Your task to perform on an android device: turn on sleep mode Image 0: 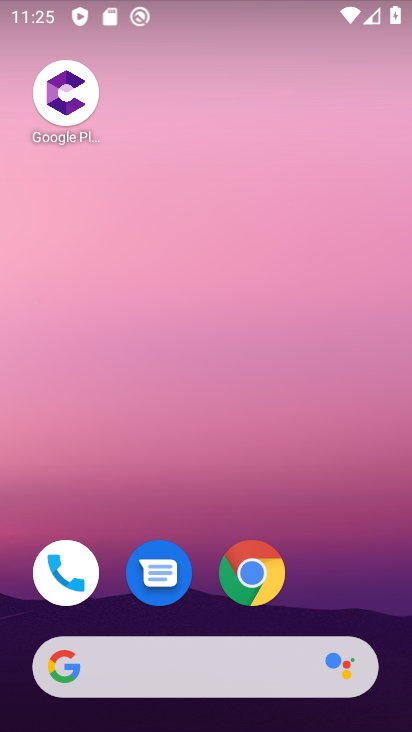
Step 0: drag from (322, 612) to (320, 141)
Your task to perform on an android device: turn on sleep mode Image 1: 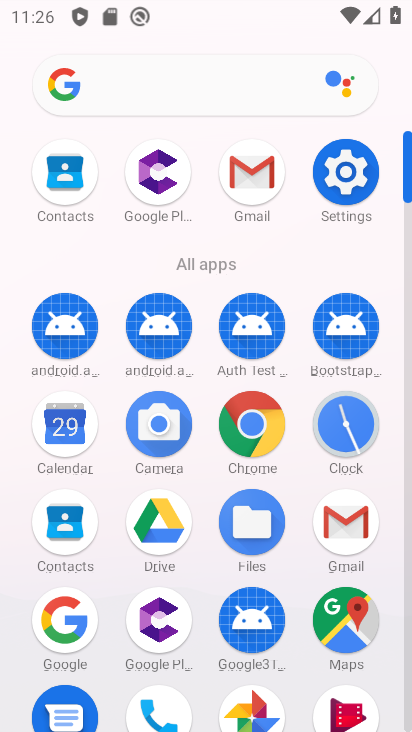
Step 1: click (357, 174)
Your task to perform on an android device: turn on sleep mode Image 2: 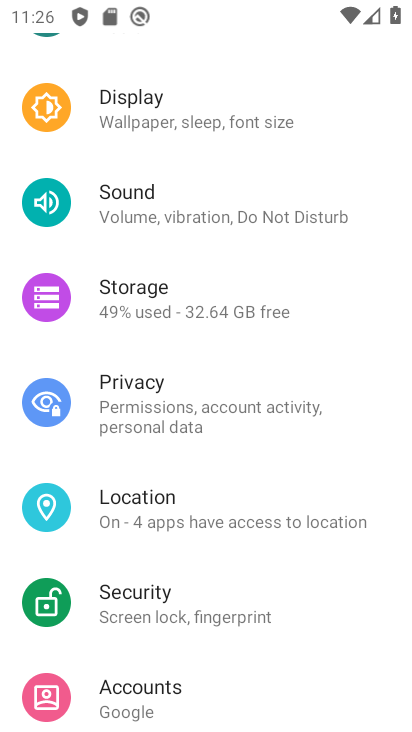
Step 2: click (213, 110)
Your task to perform on an android device: turn on sleep mode Image 3: 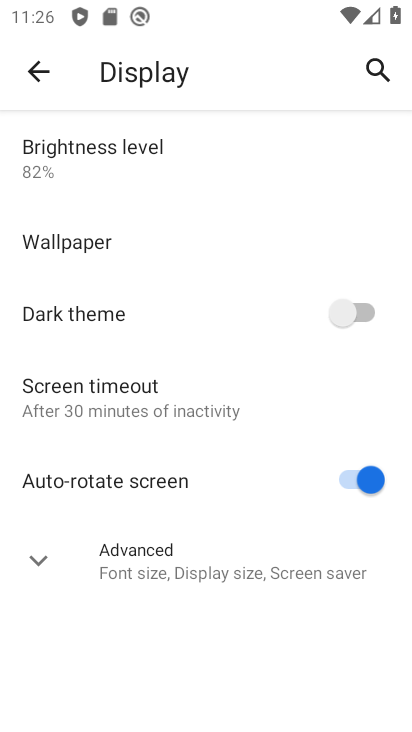
Step 3: click (35, 550)
Your task to perform on an android device: turn on sleep mode Image 4: 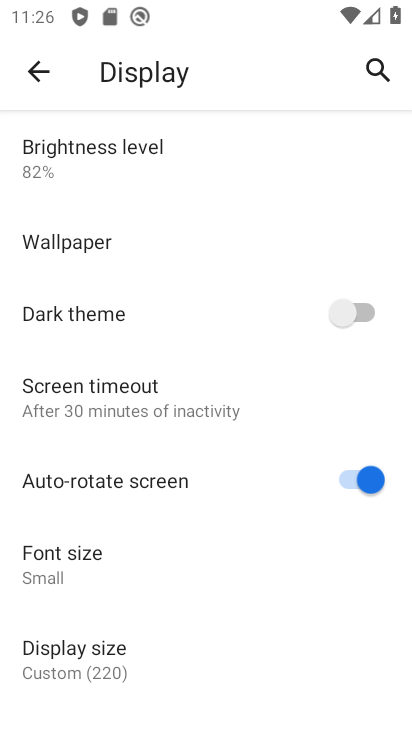
Step 4: task complete